Your task to perform on an android device: Open notification settings Image 0: 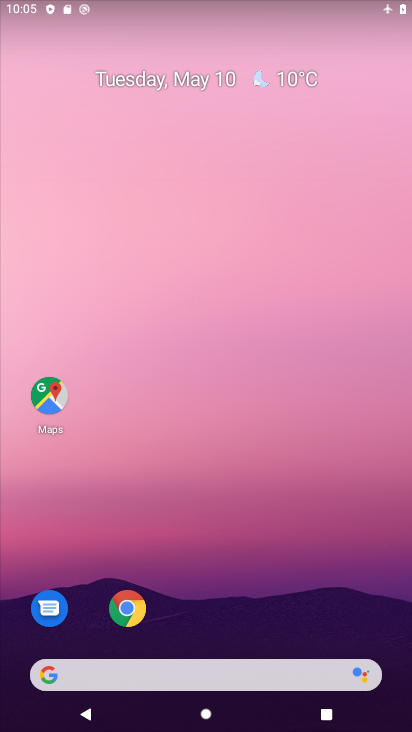
Step 0: drag from (240, 647) to (193, 13)
Your task to perform on an android device: Open notification settings Image 1: 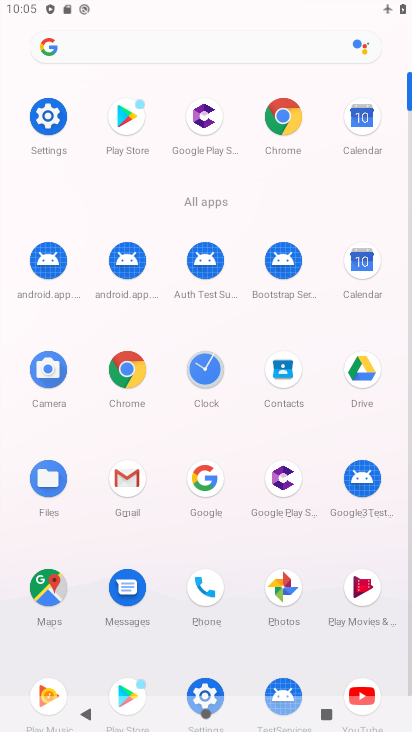
Step 1: click (44, 123)
Your task to perform on an android device: Open notification settings Image 2: 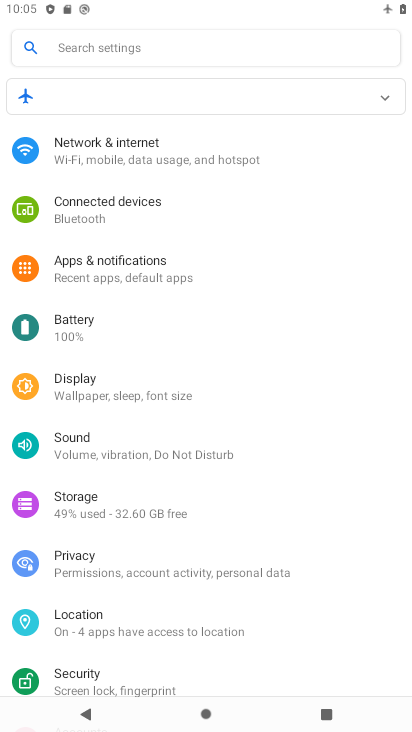
Step 2: click (169, 266)
Your task to perform on an android device: Open notification settings Image 3: 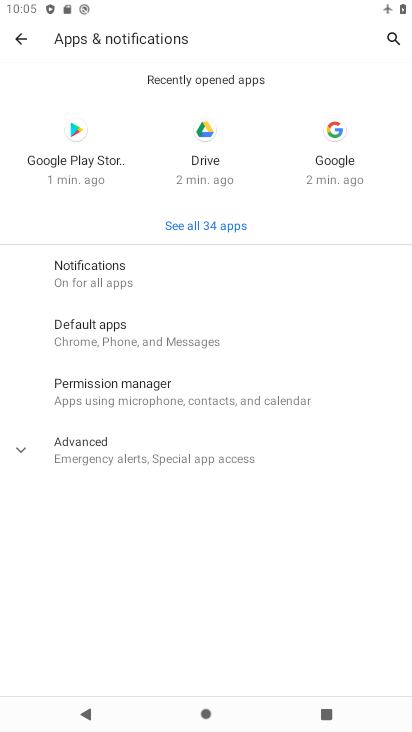
Step 3: click (192, 449)
Your task to perform on an android device: Open notification settings Image 4: 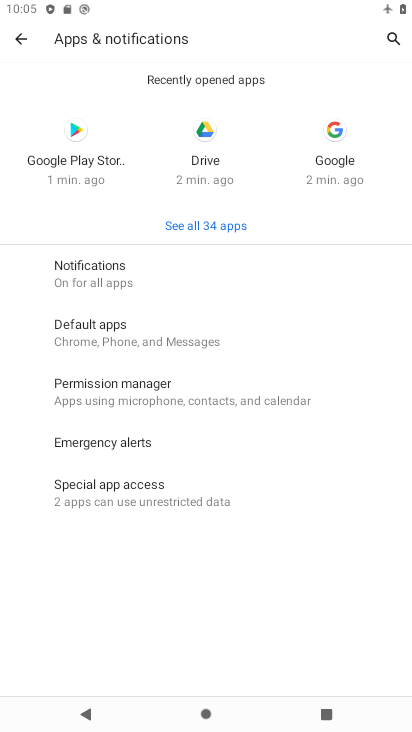
Step 4: task complete